Your task to perform on an android device: open the mobile data screen to see how much data has been used Image 0: 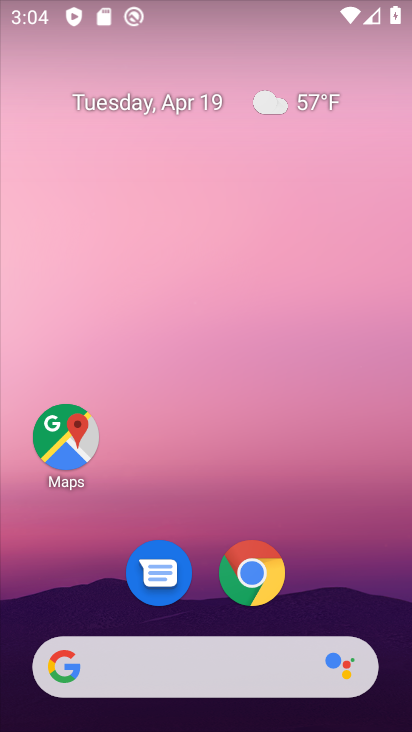
Step 0: drag from (373, 633) to (393, 34)
Your task to perform on an android device: open the mobile data screen to see how much data has been used Image 1: 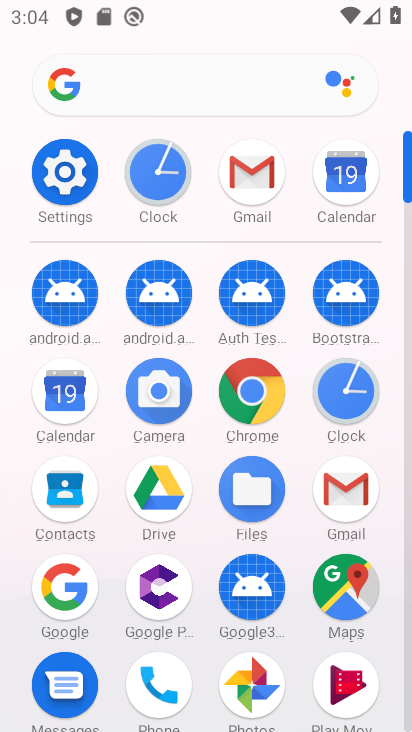
Step 1: click (67, 179)
Your task to perform on an android device: open the mobile data screen to see how much data has been used Image 2: 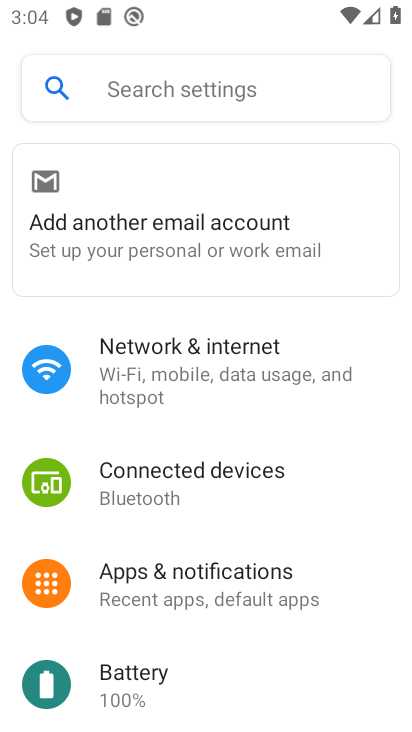
Step 2: click (169, 370)
Your task to perform on an android device: open the mobile data screen to see how much data has been used Image 3: 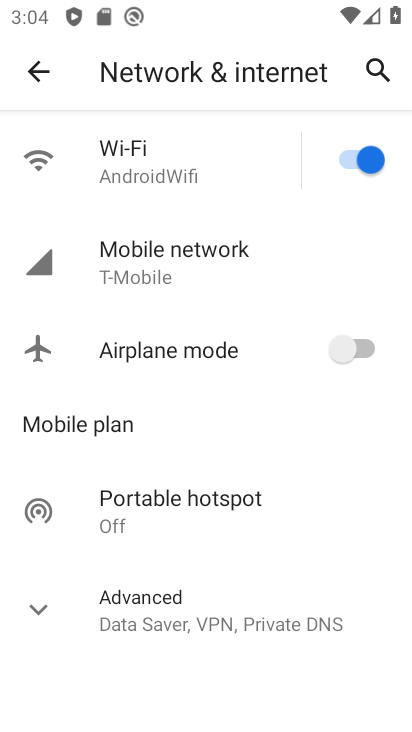
Step 3: click (149, 277)
Your task to perform on an android device: open the mobile data screen to see how much data has been used Image 4: 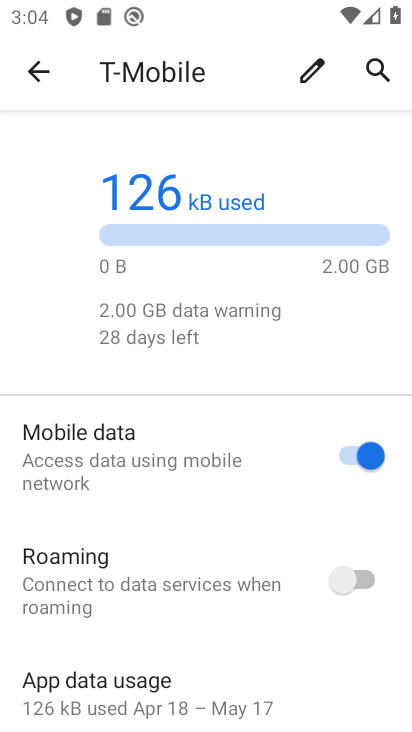
Step 4: click (88, 676)
Your task to perform on an android device: open the mobile data screen to see how much data has been used Image 5: 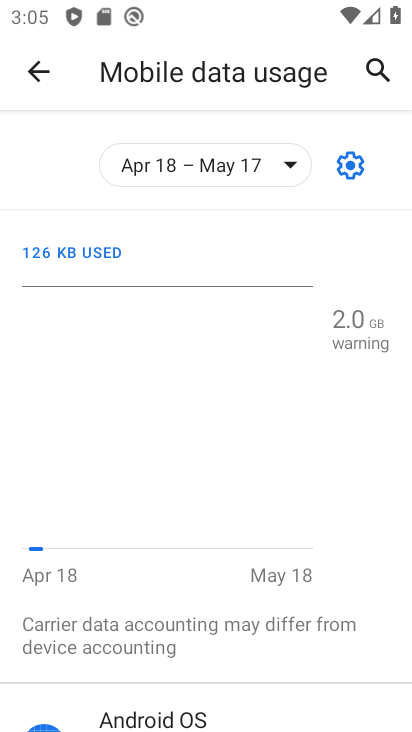
Step 5: task complete